Your task to perform on an android device: Go to Yahoo.com Image 0: 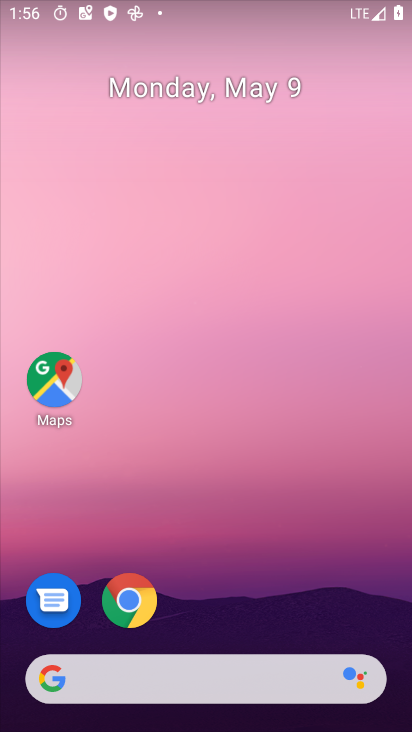
Step 0: drag from (278, 622) to (247, 210)
Your task to perform on an android device: Go to Yahoo.com Image 1: 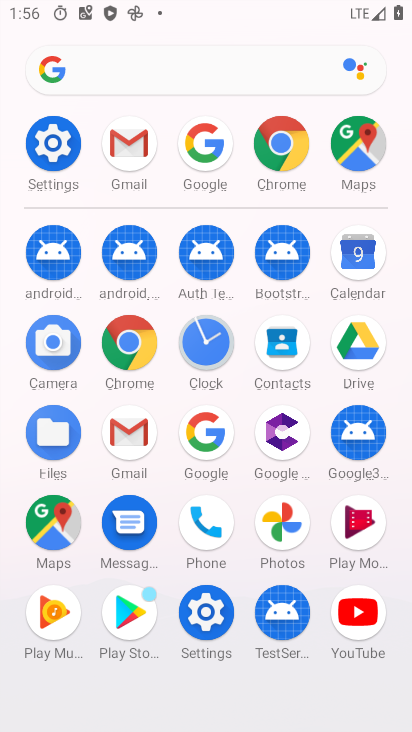
Step 1: click (137, 363)
Your task to perform on an android device: Go to Yahoo.com Image 2: 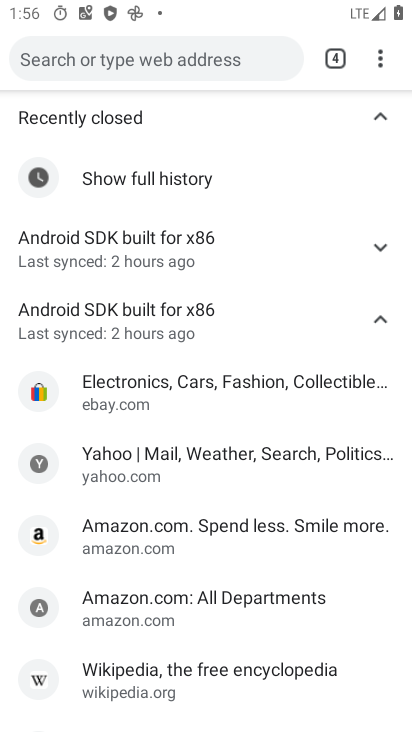
Step 2: click (255, 65)
Your task to perform on an android device: Go to Yahoo.com Image 3: 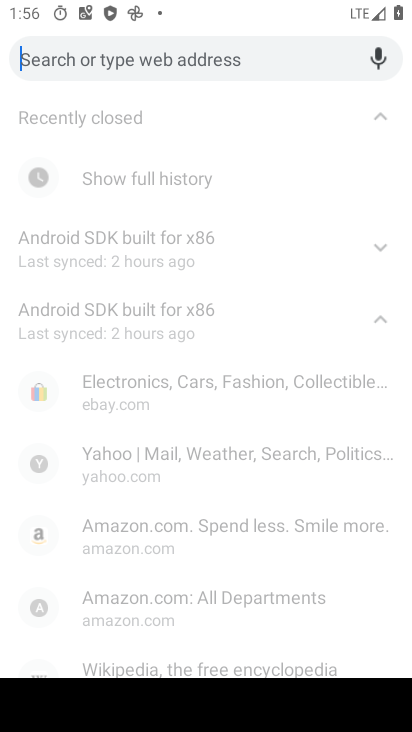
Step 3: type "Yahoo.com"
Your task to perform on an android device: Go to Yahoo.com Image 4: 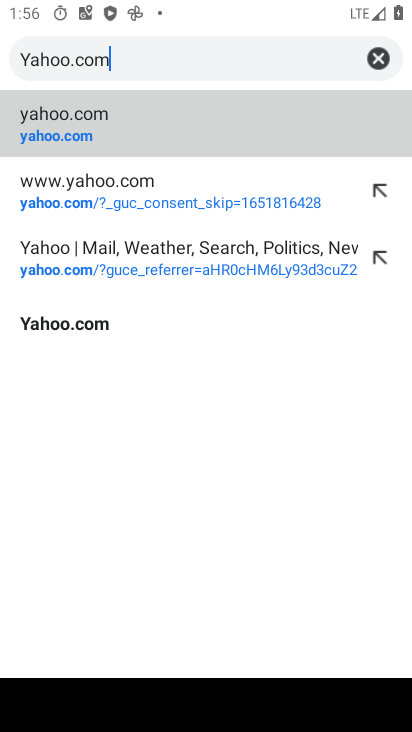
Step 4: click (206, 207)
Your task to perform on an android device: Go to Yahoo.com Image 5: 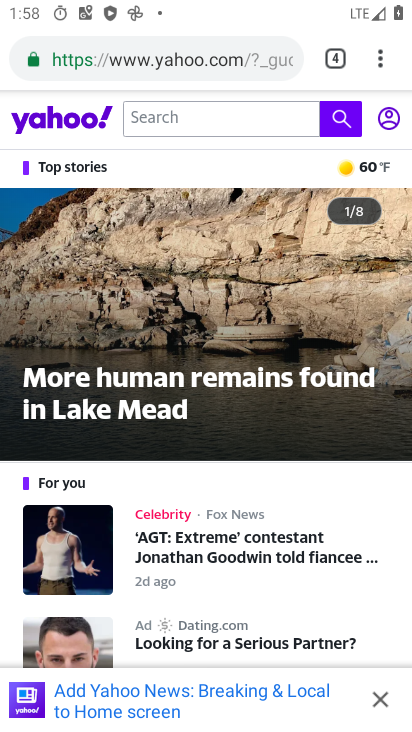
Step 5: task complete